Your task to perform on an android device: set an alarm Image 0: 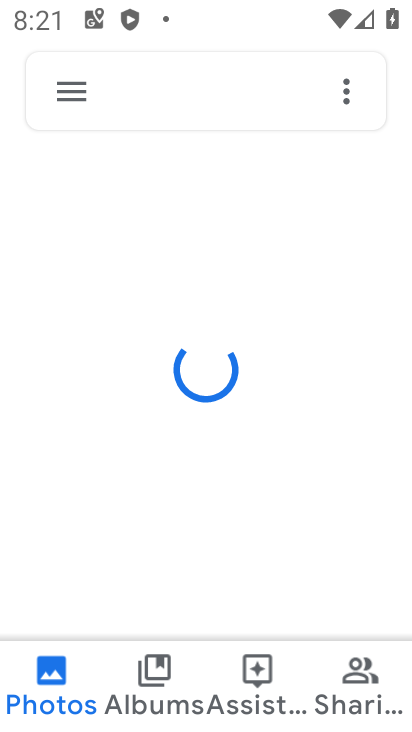
Step 0: press home button
Your task to perform on an android device: set an alarm Image 1: 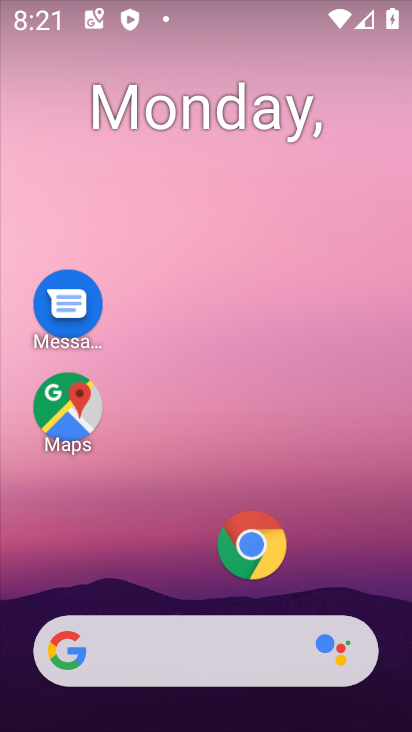
Step 1: drag from (305, 463) to (263, 25)
Your task to perform on an android device: set an alarm Image 2: 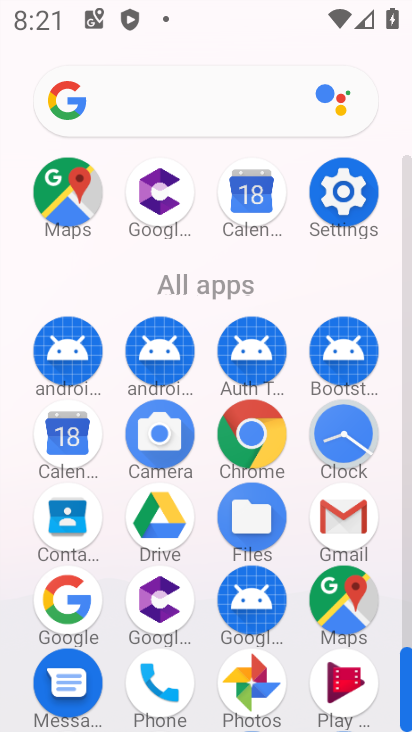
Step 2: click (341, 427)
Your task to perform on an android device: set an alarm Image 3: 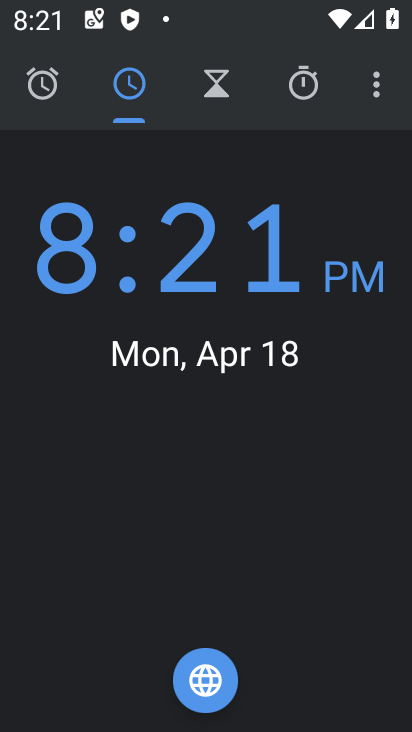
Step 3: click (58, 106)
Your task to perform on an android device: set an alarm Image 4: 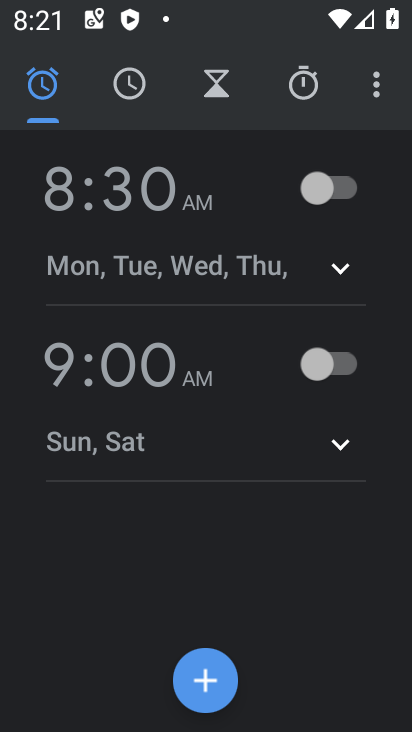
Step 4: click (333, 189)
Your task to perform on an android device: set an alarm Image 5: 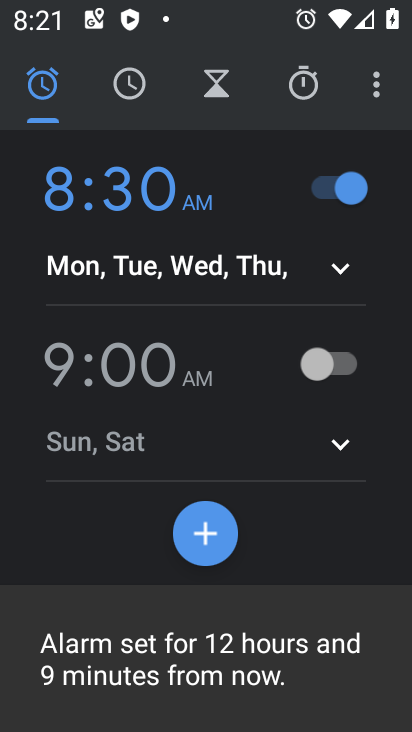
Step 5: task complete